Your task to perform on an android device: change the clock style Image 0: 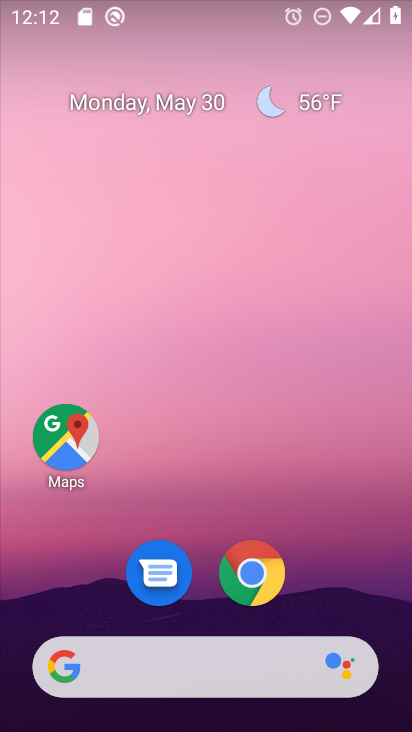
Step 0: drag from (259, 628) to (286, 46)
Your task to perform on an android device: change the clock style Image 1: 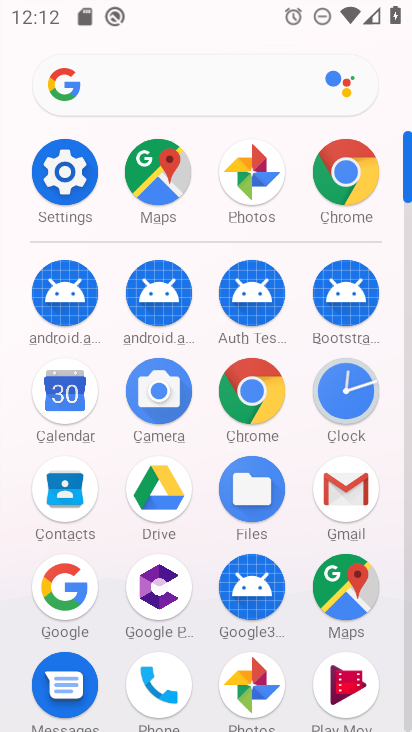
Step 1: click (336, 389)
Your task to perform on an android device: change the clock style Image 2: 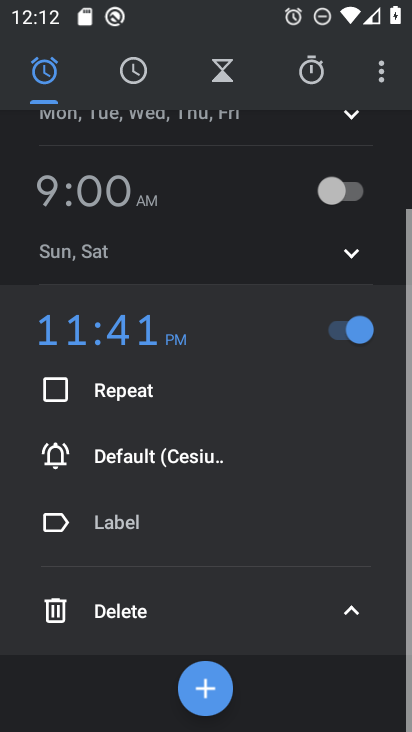
Step 2: click (380, 86)
Your task to perform on an android device: change the clock style Image 3: 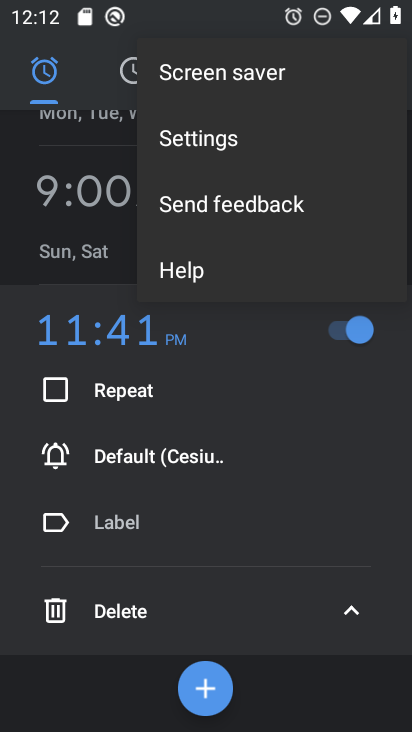
Step 3: click (242, 156)
Your task to perform on an android device: change the clock style Image 4: 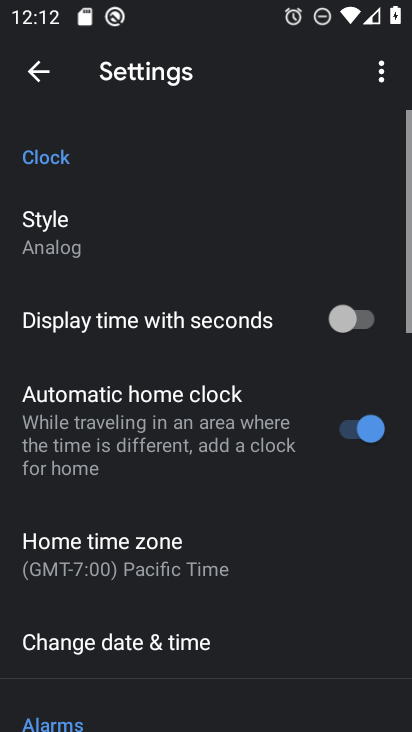
Step 4: click (103, 228)
Your task to perform on an android device: change the clock style Image 5: 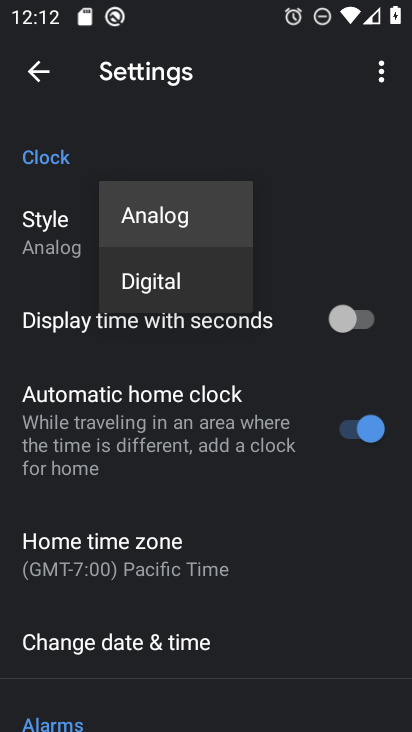
Step 5: click (164, 269)
Your task to perform on an android device: change the clock style Image 6: 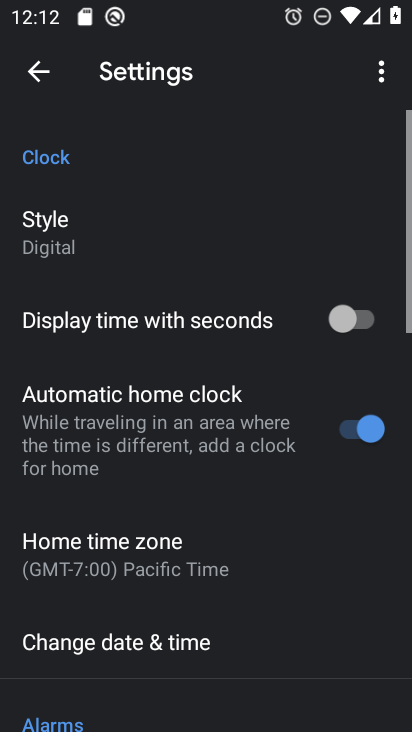
Step 6: task complete